Your task to perform on an android device: Open Google Maps Image 0: 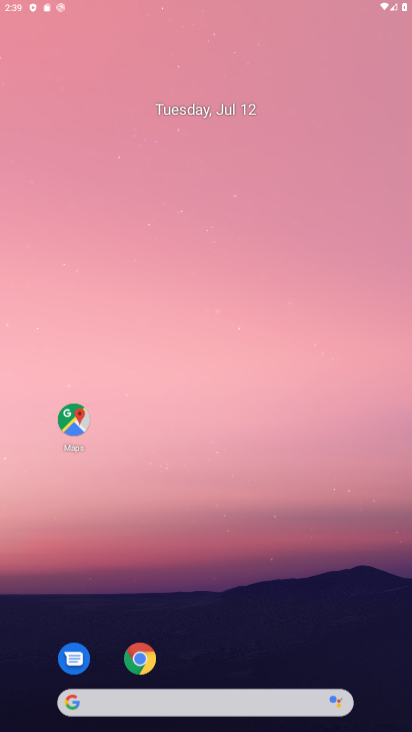
Step 0: click (243, 532)
Your task to perform on an android device: Open Google Maps Image 1: 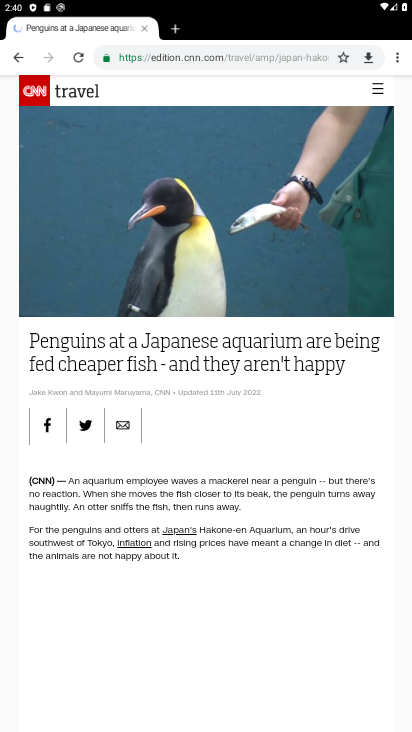
Step 1: press back button
Your task to perform on an android device: Open Google Maps Image 2: 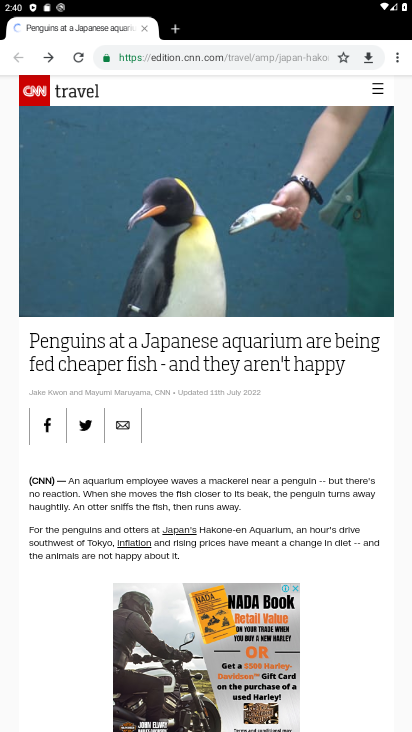
Step 2: press back button
Your task to perform on an android device: Open Google Maps Image 3: 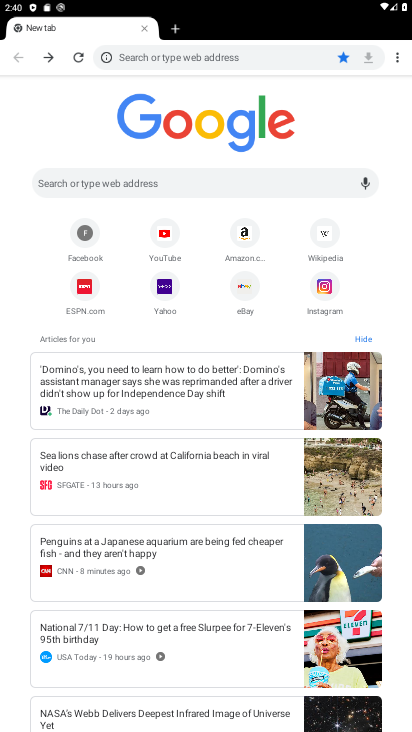
Step 3: press home button
Your task to perform on an android device: Open Google Maps Image 4: 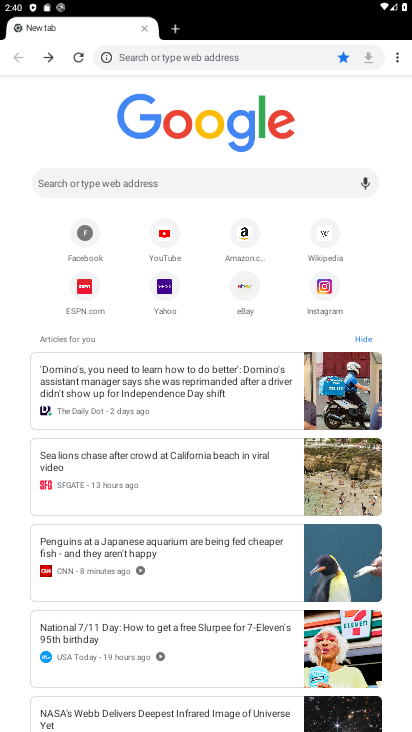
Step 4: press home button
Your task to perform on an android device: Open Google Maps Image 5: 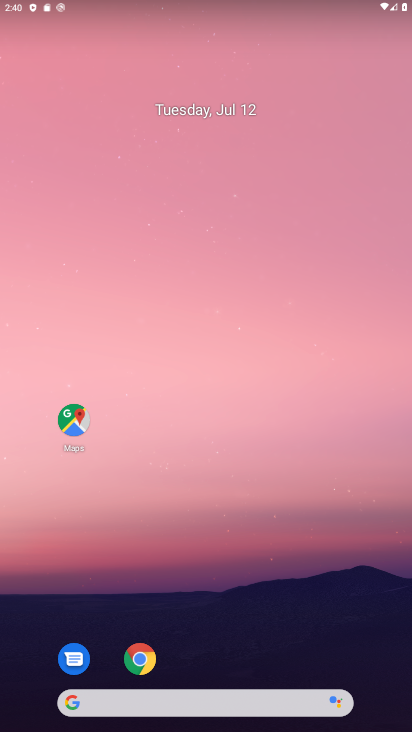
Step 5: drag from (244, 687) to (128, 175)
Your task to perform on an android device: Open Google Maps Image 6: 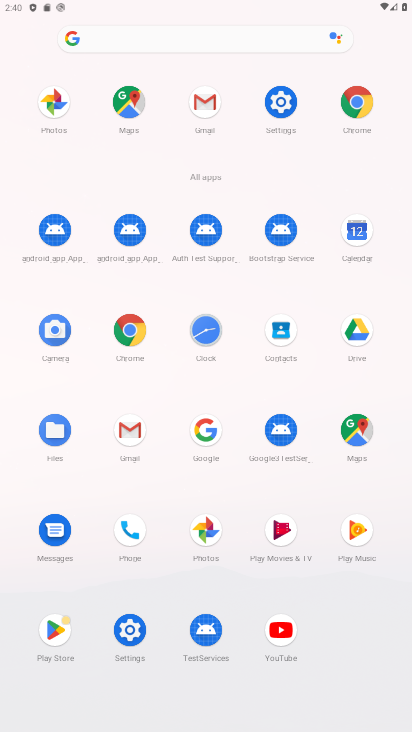
Step 6: click (345, 436)
Your task to perform on an android device: Open Google Maps Image 7: 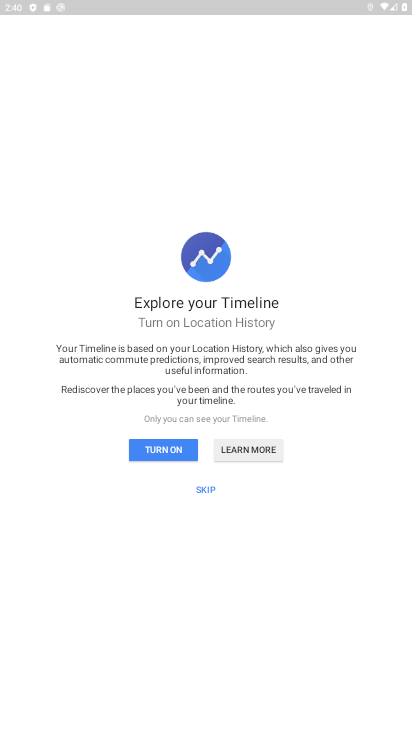
Step 7: click (243, 445)
Your task to perform on an android device: Open Google Maps Image 8: 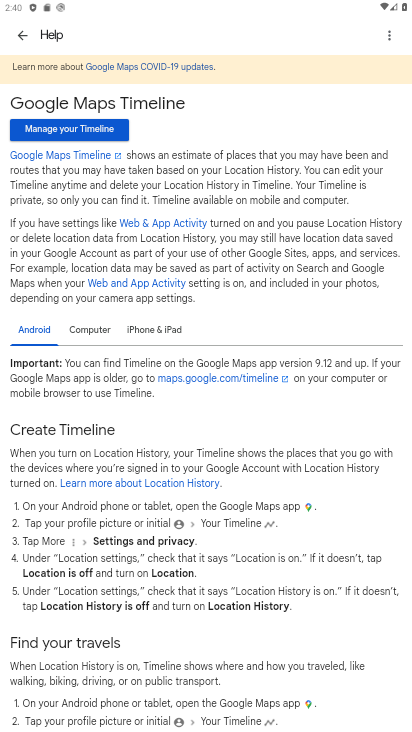
Step 8: press back button
Your task to perform on an android device: Open Google Maps Image 9: 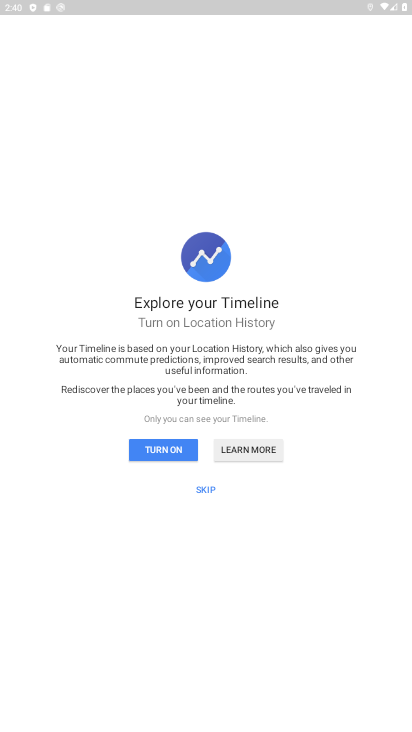
Step 9: click (206, 498)
Your task to perform on an android device: Open Google Maps Image 10: 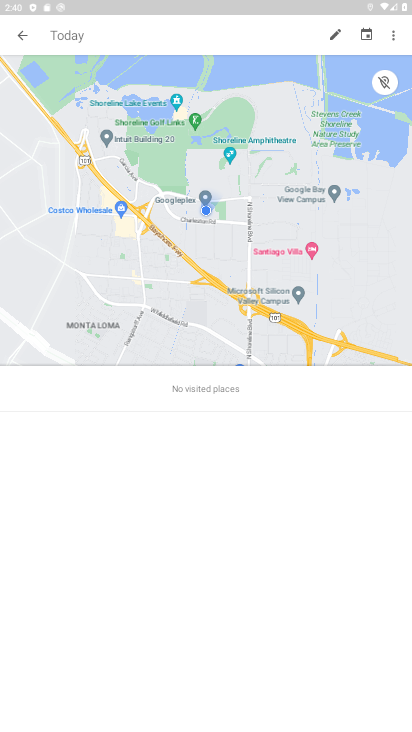
Step 10: task complete